Your task to perform on an android device: make emails show in primary in the gmail app Image 0: 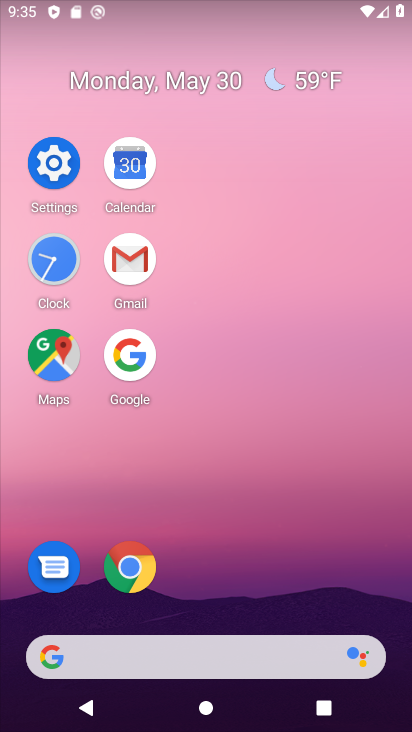
Step 0: click (131, 251)
Your task to perform on an android device: make emails show in primary in the gmail app Image 1: 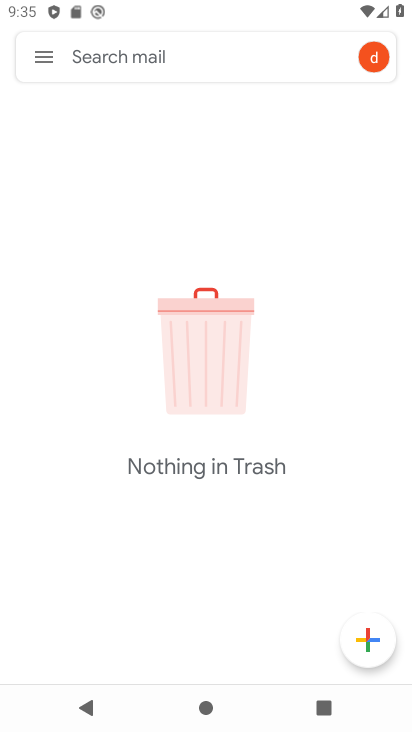
Step 1: click (41, 70)
Your task to perform on an android device: make emails show in primary in the gmail app Image 2: 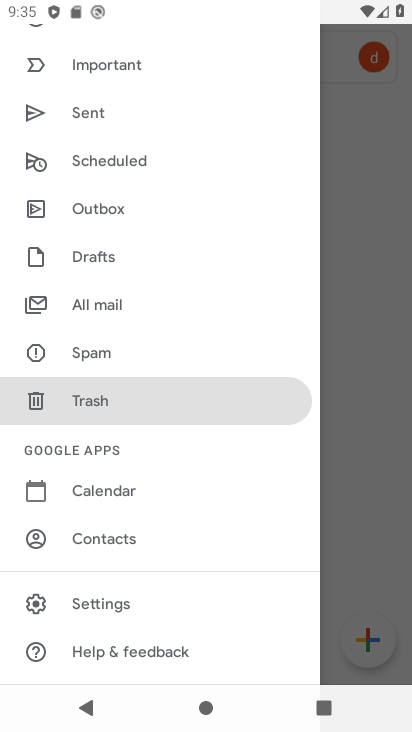
Step 2: click (139, 597)
Your task to perform on an android device: make emails show in primary in the gmail app Image 3: 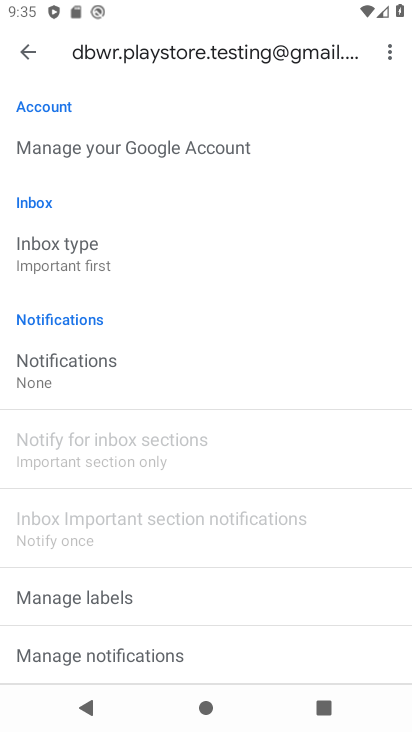
Step 3: click (135, 260)
Your task to perform on an android device: make emails show in primary in the gmail app Image 4: 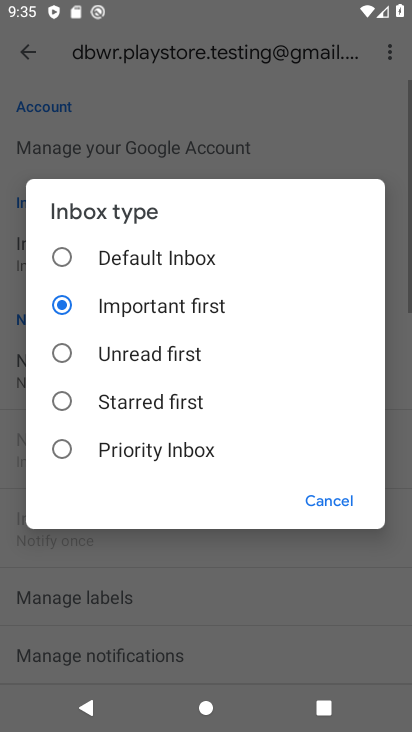
Step 4: click (137, 248)
Your task to perform on an android device: make emails show in primary in the gmail app Image 5: 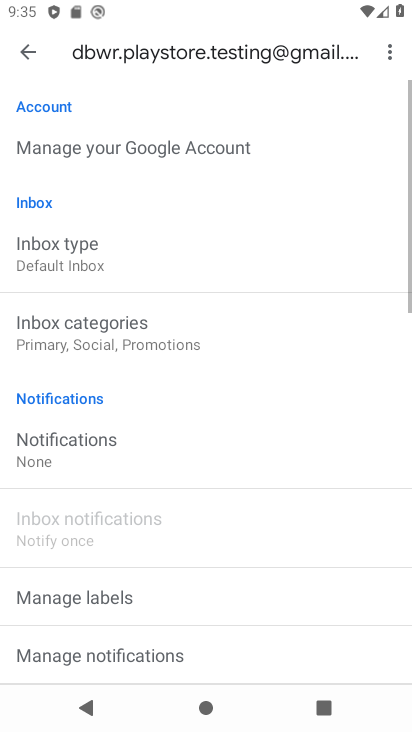
Step 5: click (152, 335)
Your task to perform on an android device: make emails show in primary in the gmail app Image 6: 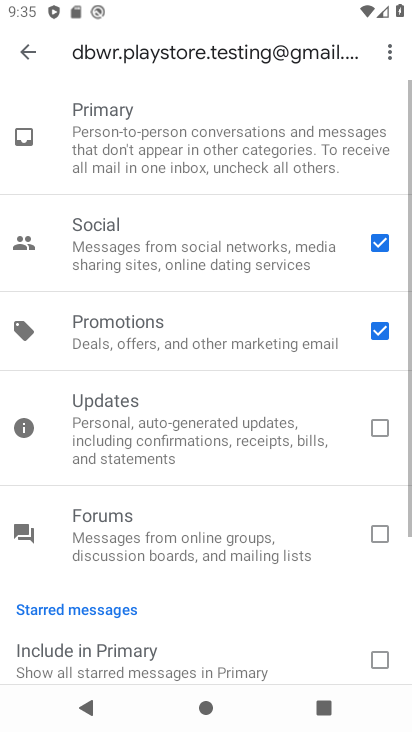
Step 6: click (373, 342)
Your task to perform on an android device: make emails show in primary in the gmail app Image 7: 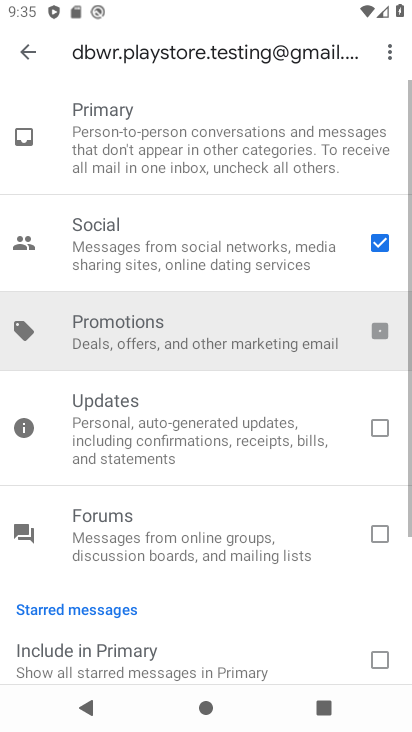
Step 7: click (353, 246)
Your task to perform on an android device: make emails show in primary in the gmail app Image 8: 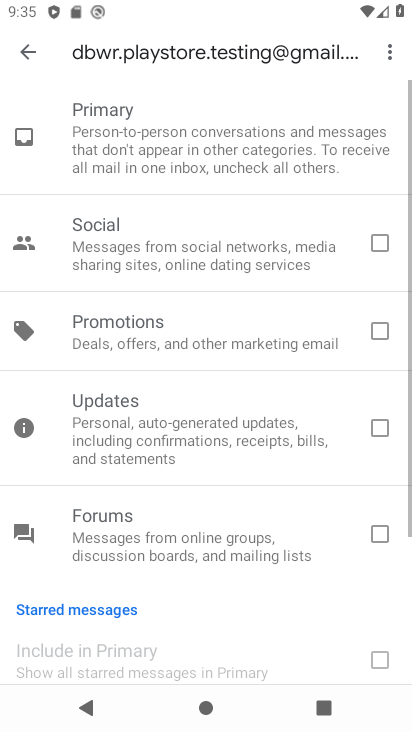
Step 8: task complete